Your task to perform on an android device: Open Chrome and go to settings Image 0: 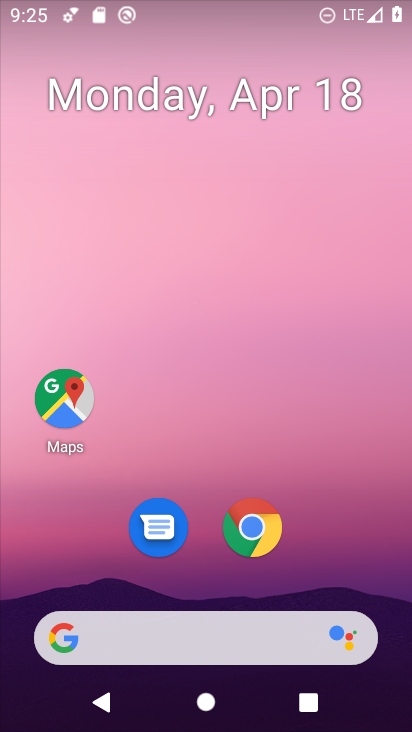
Step 0: drag from (321, 493) to (211, 22)
Your task to perform on an android device: Open Chrome and go to settings Image 1: 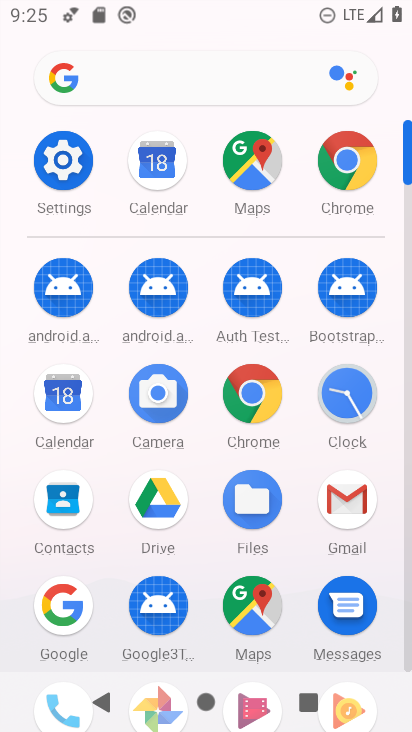
Step 1: click (347, 158)
Your task to perform on an android device: Open Chrome and go to settings Image 2: 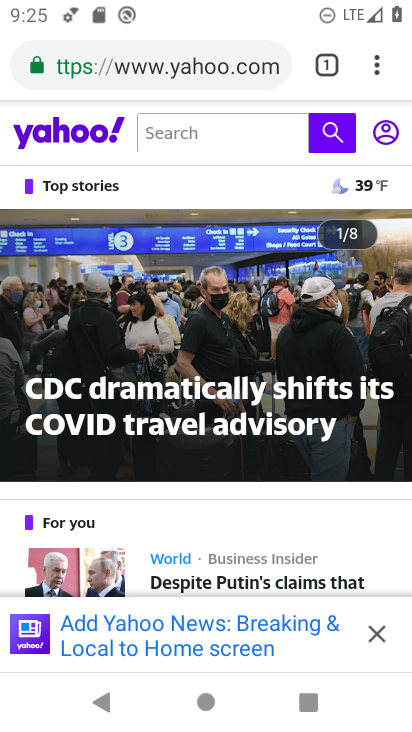
Step 2: task complete